Your task to perform on an android device: What is the capital of Italy? Image 0: 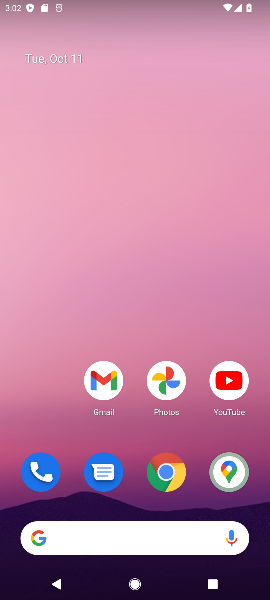
Step 0: click (170, 472)
Your task to perform on an android device: What is the capital of Italy? Image 1: 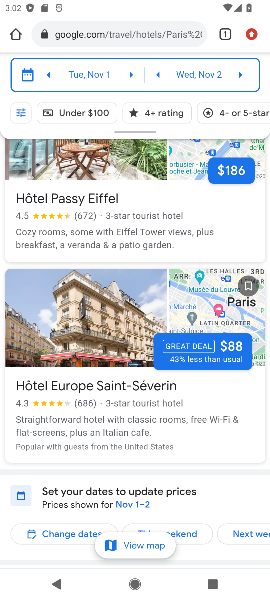
Step 1: click (150, 29)
Your task to perform on an android device: What is the capital of Italy? Image 2: 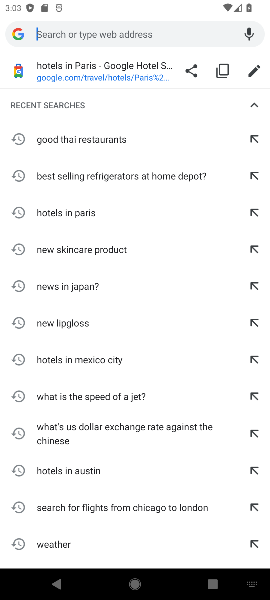
Step 2: type "What is the capital of Italy?"
Your task to perform on an android device: What is the capital of Italy? Image 3: 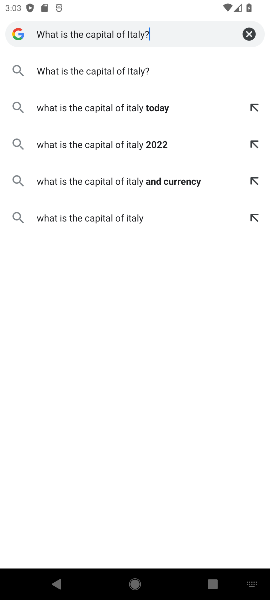
Step 3: click (149, 67)
Your task to perform on an android device: What is the capital of Italy? Image 4: 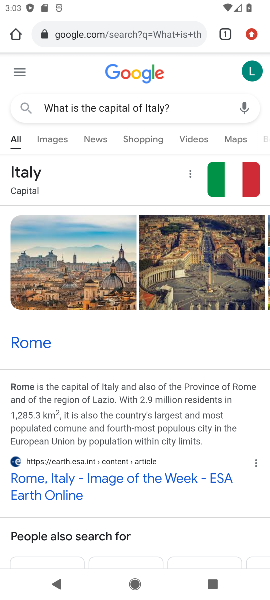
Step 4: task complete